Your task to perform on an android device: Open Youtube and go to the subscriptions tab Image 0: 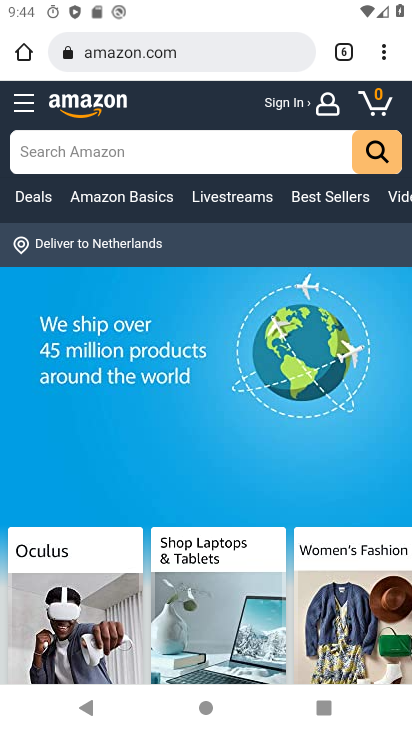
Step 0: press home button
Your task to perform on an android device: Open Youtube and go to the subscriptions tab Image 1: 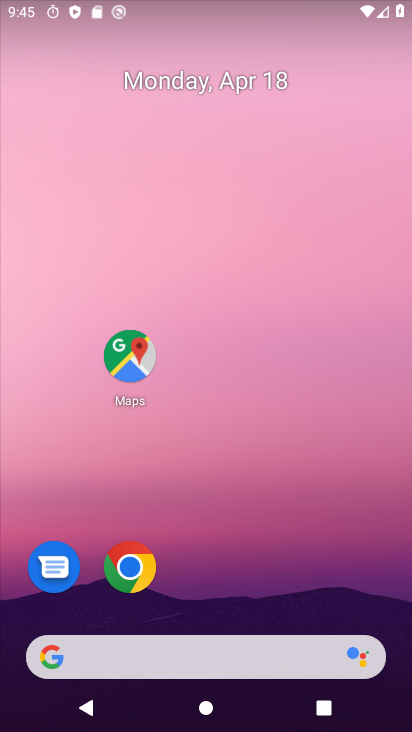
Step 1: drag from (281, 667) to (293, 317)
Your task to perform on an android device: Open Youtube and go to the subscriptions tab Image 2: 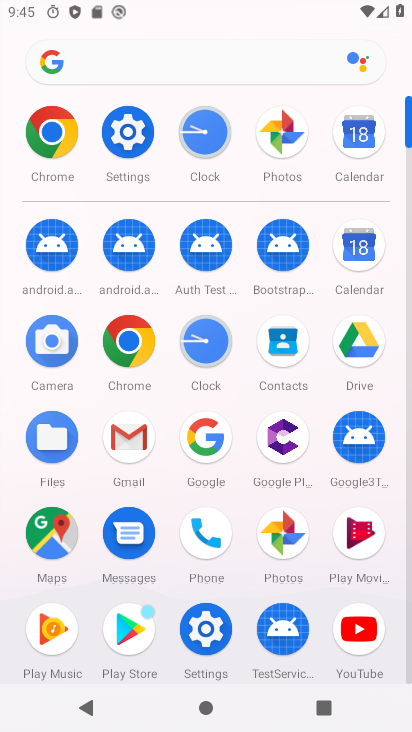
Step 2: click (338, 610)
Your task to perform on an android device: Open Youtube and go to the subscriptions tab Image 3: 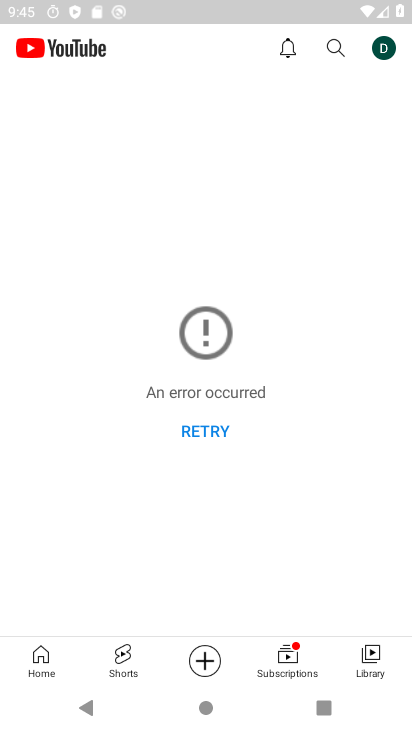
Step 3: click (193, 426)
Your task to perform on an android device: Open Youtube and go to the subscriptions tab Image 4: 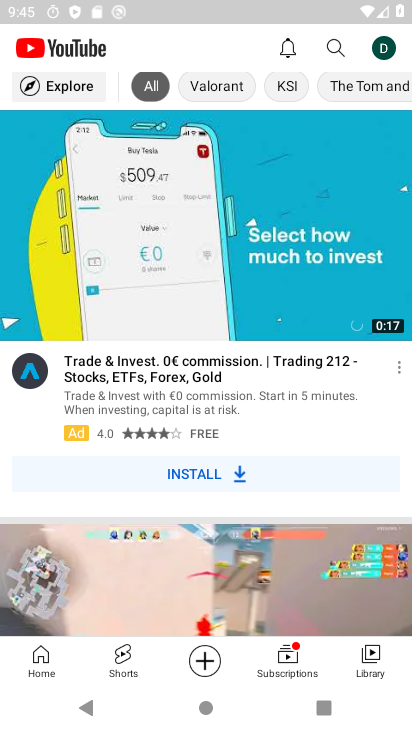
Step 4: click (281, 664)
Your task to perform on an android device: Open Youtube and go to the subscriptions tab Image 5: 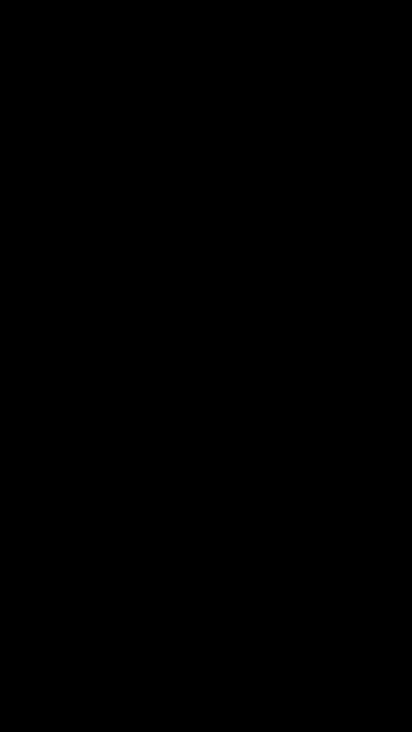
Step 5: press back button
Your task to perform on an android device: Open Youtube and go to the subscriptions tab Image 6: 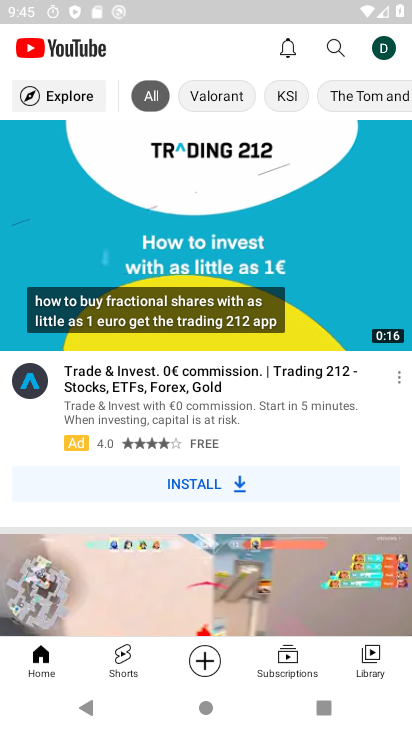
Step 6: click (279, 665)
Your task to perform on an android device: Open Youtube and go to the subscriptions tab Image 7: 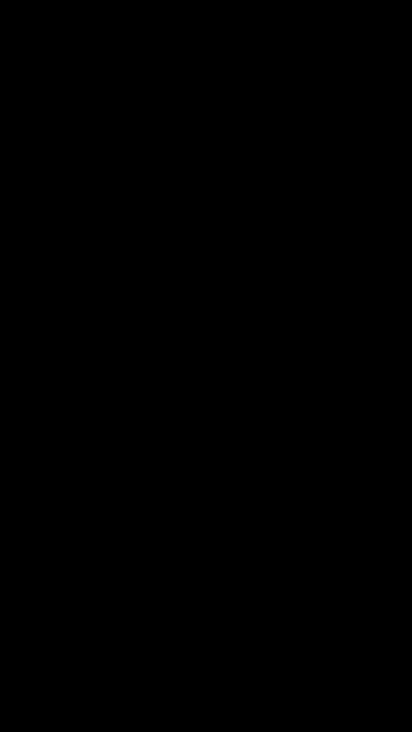
Step 7: task complete